Your task to perform on an android device: turn on javascript in the chrome app Image 0: 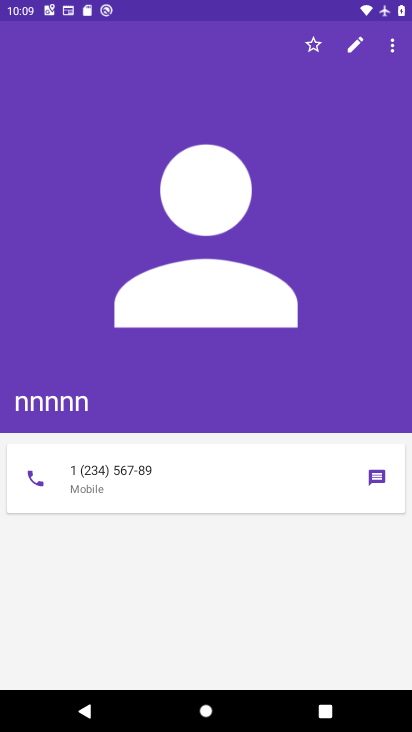
Step 0: press home button
Your task to perform on an android device: turn on javascript in the chrome app Image 1: 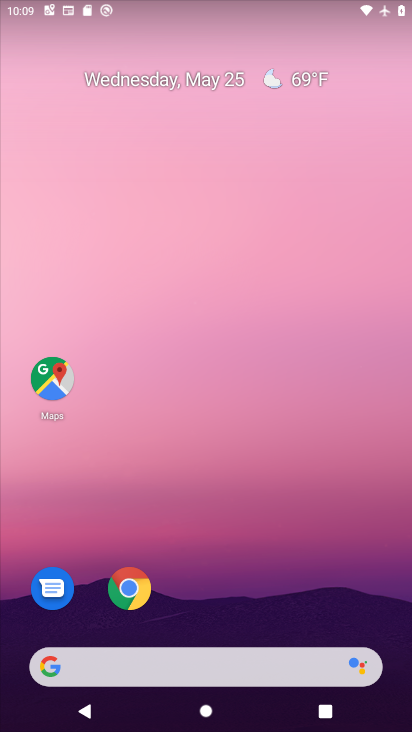
Step 1: drag from (374, 625) to (347, 158)
Your task to perform on an android device: turn on javascript in the chrome app Image 2: 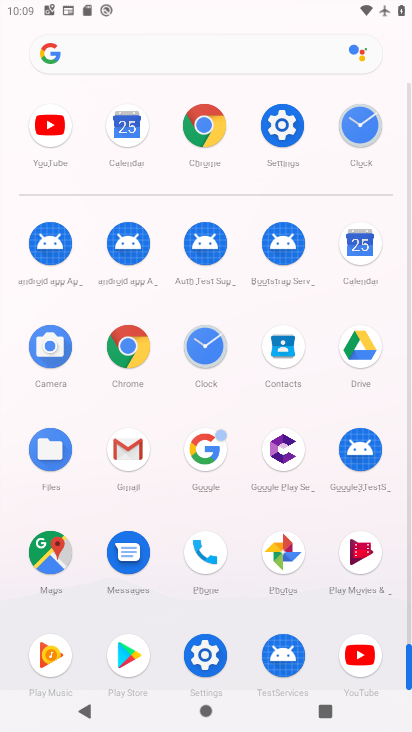
Step 2: click (203, 142)
Your task to perform on an android device: turn on javascript in the chrome app Image 3: 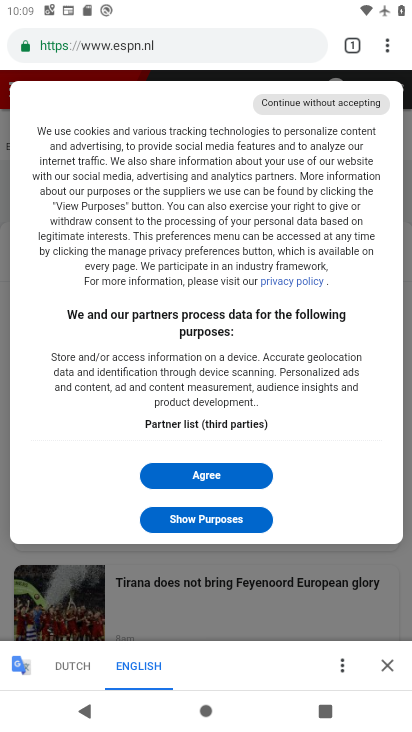
Step 3: click (387, 56)
Your task to perform on an android device: turn on javascript in the chrome app Image 4: 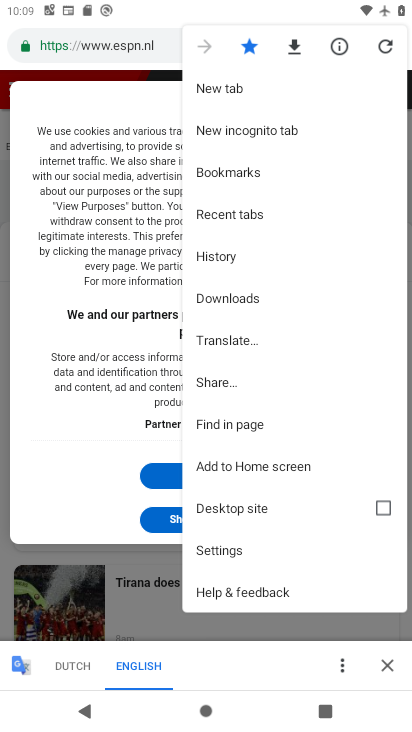
Step 4: click (253, 553)
Your task to perform on an android device: turn on javascript in the chrome app Image 5: 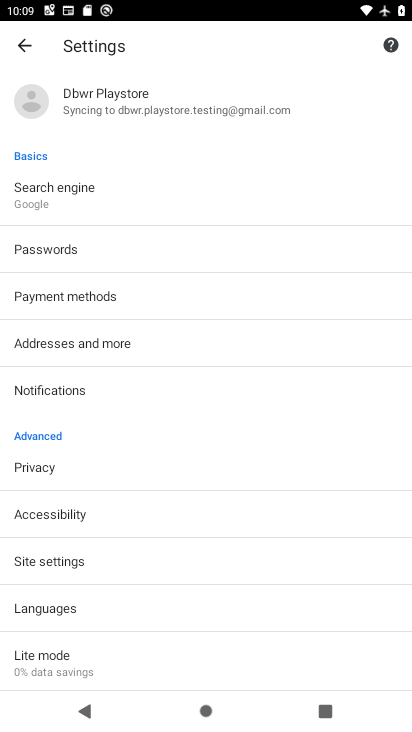
Step 5: drag from (281, 538) to (305, 447)
Your task to perform on an android device: turn on javascript in the chrome app Image 6: 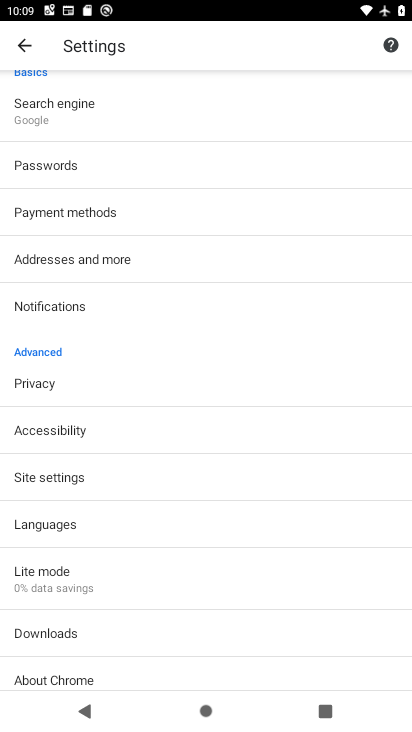
Step 6: drag from (326, 575) to (350, 478)
Your task to perform on an android device: turn on javascript in the chrome app Image 7: 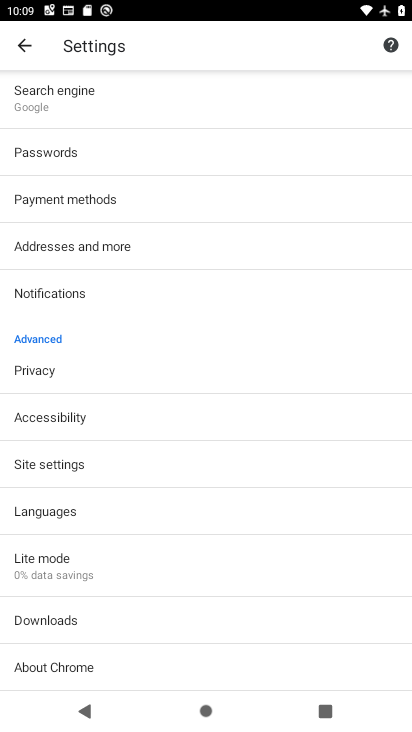
Step 7: click (131, 475)
Your task to perform on an android device: turn on javascript in the chrome app Image 8: 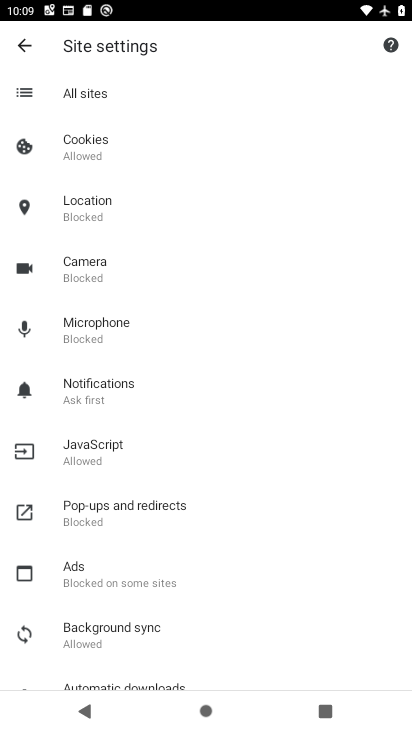
Step 8: drag from (286, 505) to (287, 444)
Your task to perform on an android device: turn on javascript in the chrome app Image 9: 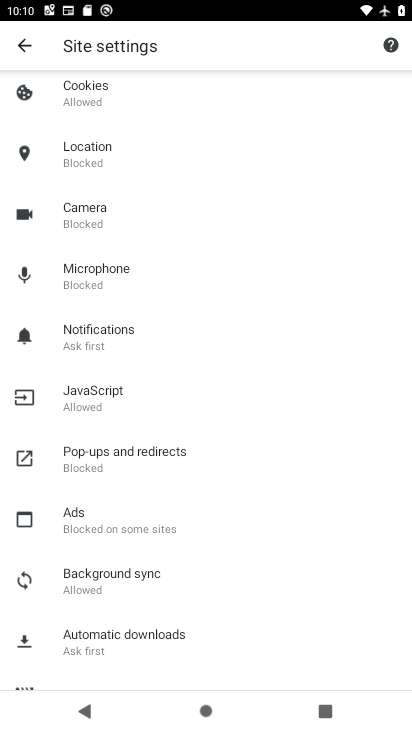
Step 9: drag from (292, 527) to (306, 416)
Your task to perform on an android device: turn on javascript in the chrome app Image 10: 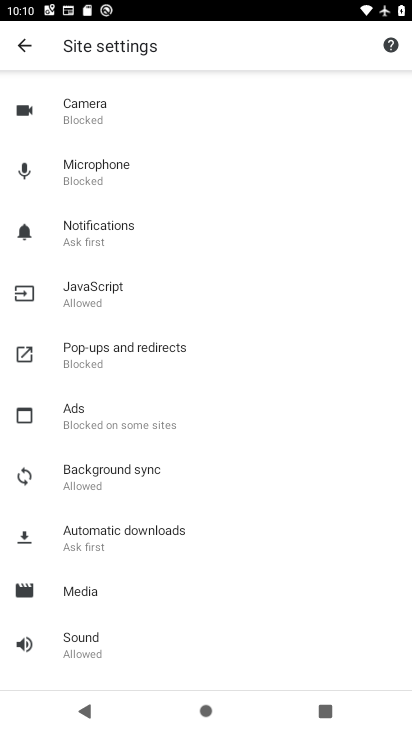
Step 10: drag from (299, 540) to (320, 420)
Your task to perform on an android device: turn on javascript in the chrome app Image 11: 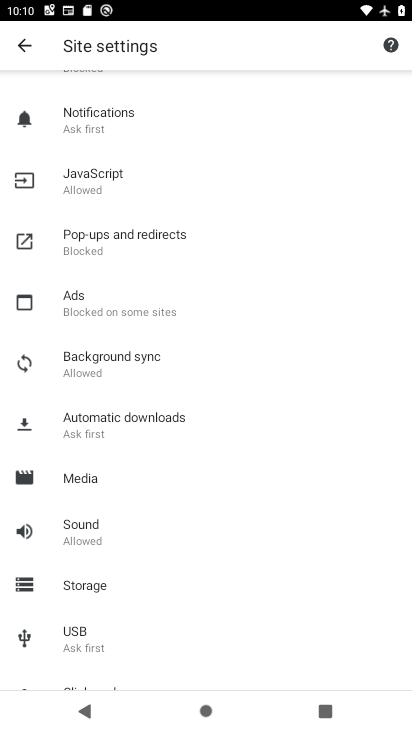
Step 11: drag from (299, 285) to (309, 427)
Your task to perform on an android device: turn on javascript in the chrome app Image 12: 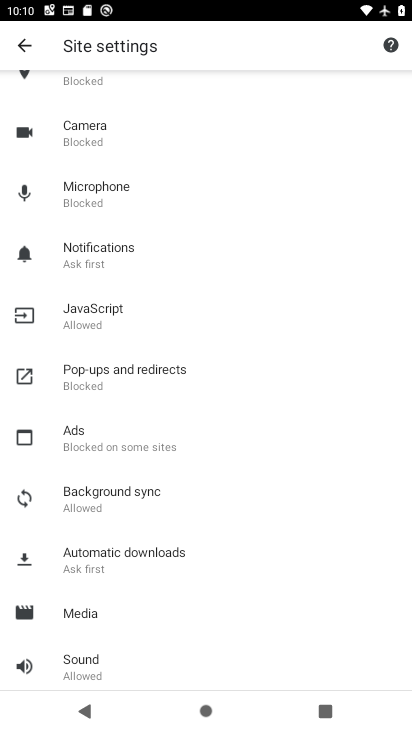
Step 12: click (97, 315)
Your task to perform on an android device: turn on javascript in the chrome app Image 13: 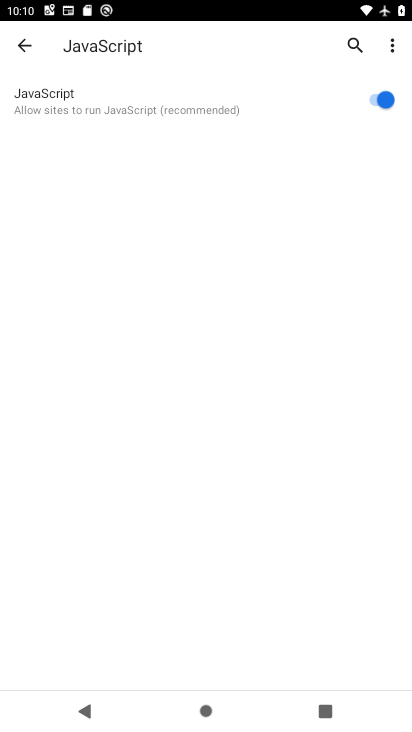
Step 13: task complete